Your task to perform on an android device: Search for Mexican restaurants on Maps Image 0: 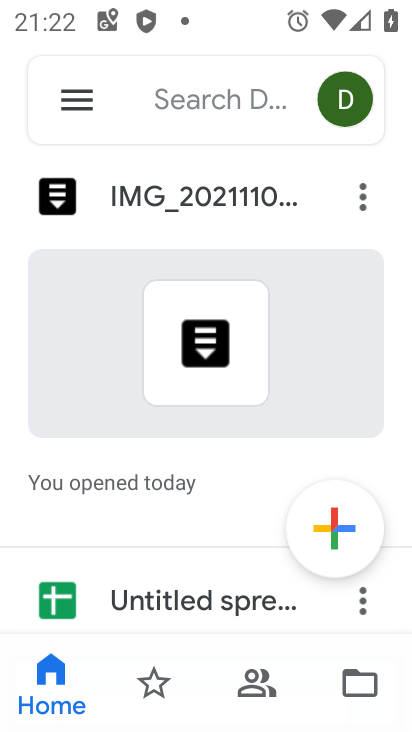
Step 0: press home button
Your task to perform on an android device: Search for Mexican restaurants on Maps Image 1: 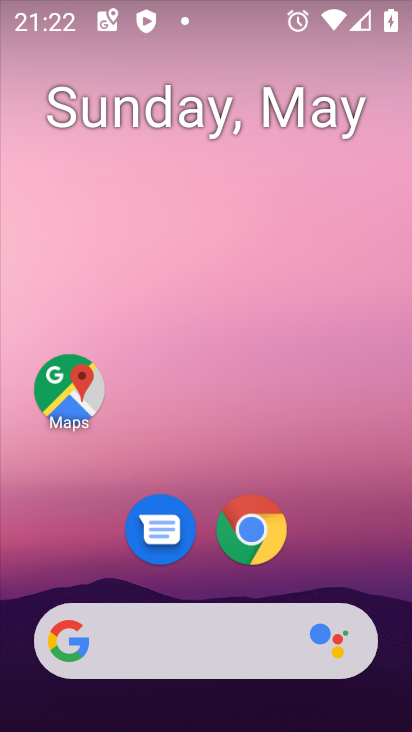
Step 1: click (78, 385)
Your task to perform on an android device: Search for Mexican restaurants on Maps Image 2: 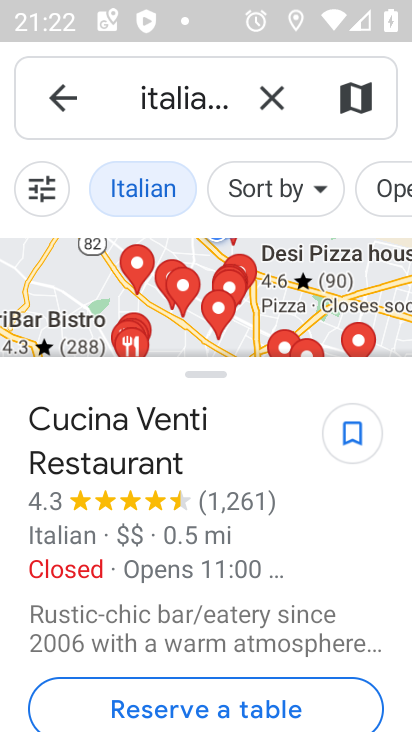
Step 2: click (276, 106)
Your task to perform on an android device: Search for Mexican restaurants on Maps Image 3: 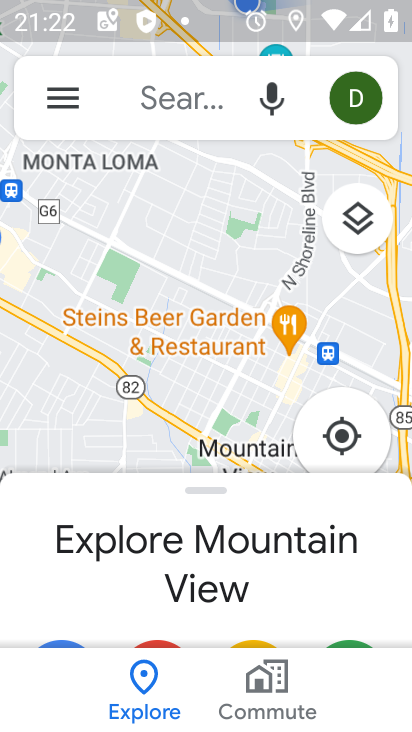
Step 3: click (130, 94)
Your task to perform on an android device: Search for Mexican restaurants on Maps Image 4: 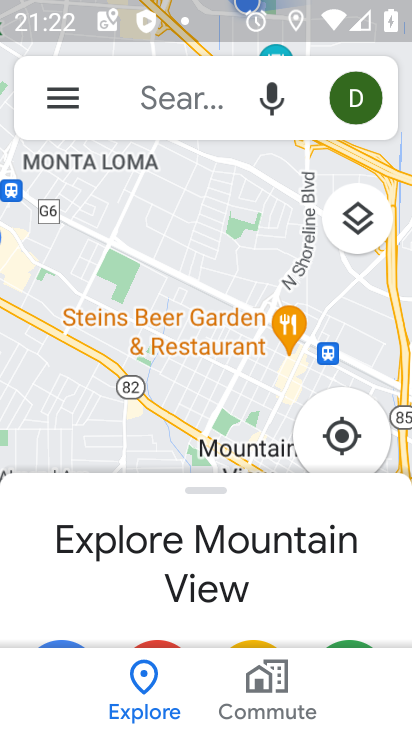
Step 4: click (141, 102)
Your task to perform on an android device: Search for Mexican restaurants on Maps Image 5: 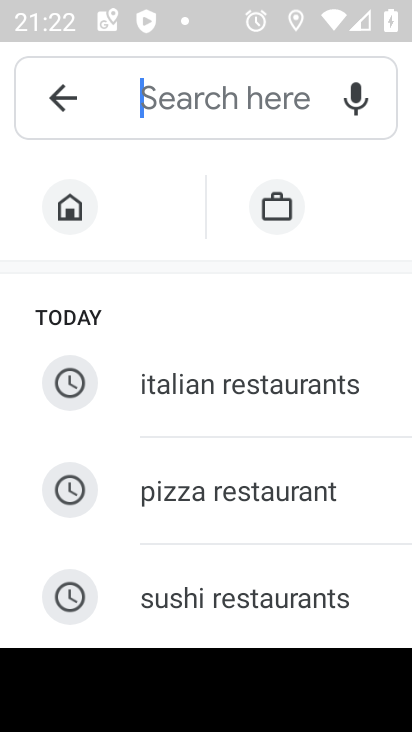
Step 5: type "mexican restaurant"
Your task to perform on an android device: Search for Mexican restaurants on Maps Image 6: 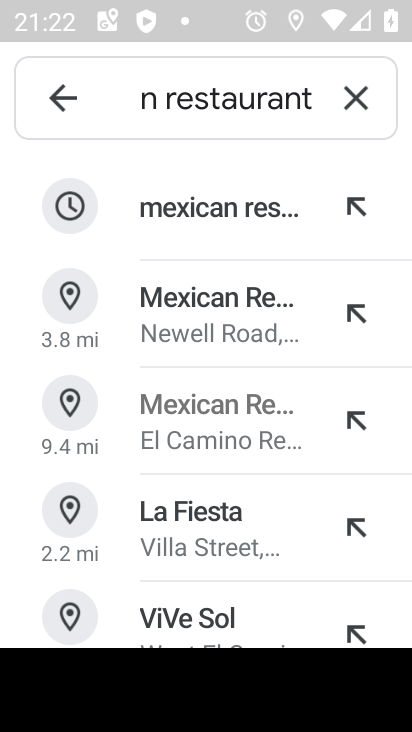
Step 6: click (232, 199)
Your task to perform on an android device: Search for Mexican restaurants on Maps Image 7: 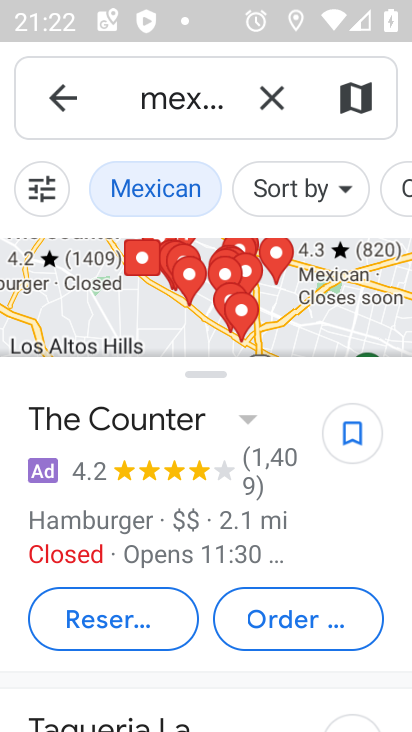
Step 7: task complete